Your task to perform on an android device: snooze an email in the gmail app Image 0: 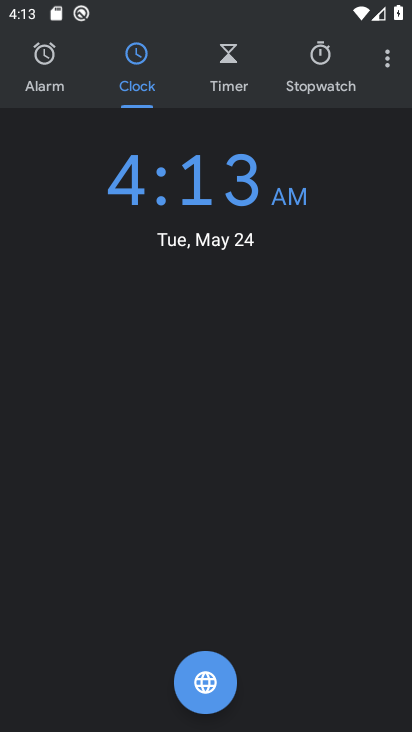
Step 0: press home button
Your task to perform on an android device: snooze an email in the gmail app Image 1: 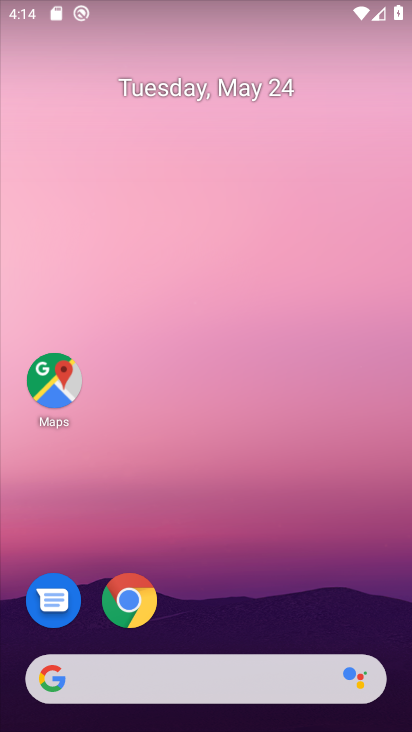
Step 1: drag from (186, 660) to (147, 54)
Your task to perform on an android device: snooze an email in the gmail app Image 2: 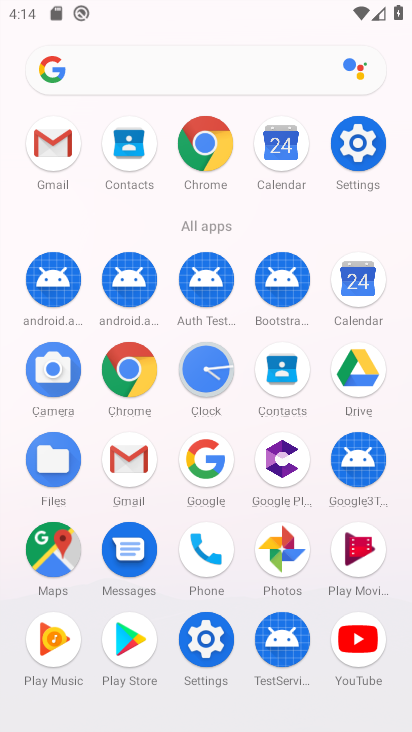
Step 2: click (123, 464)
Your task to perform on an android device: snooze an email in the gmail app Image 3: 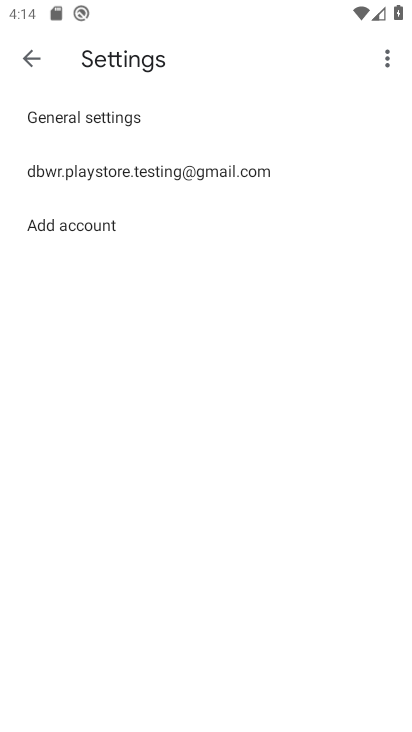
Step 3: press back button
Your task to perform on an android device: snooze an email in the gmail app Image 4: 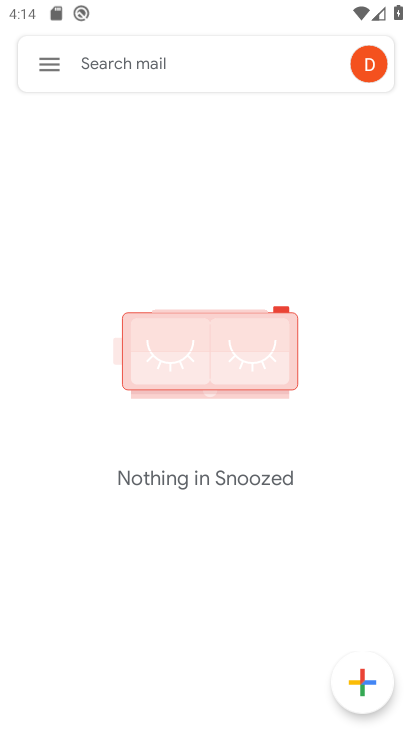
Step 4: click (50, 70)
Your task to perform on an android device: snooze an email in the gmail app Image 5: 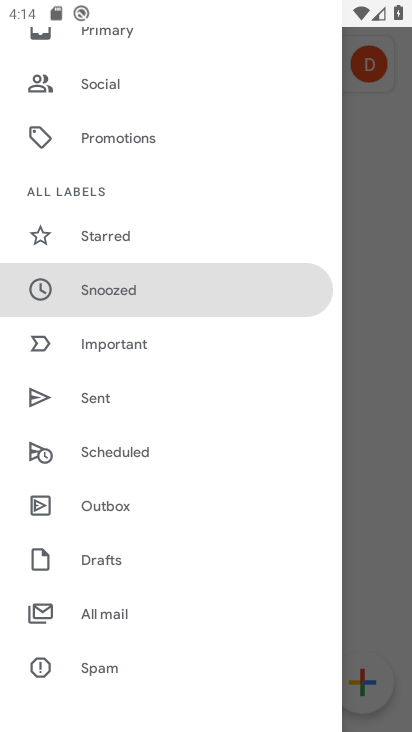
Step 5: click (136, 304)
Your task to perform on an android device: snooze an email in the gmail app Image 6: 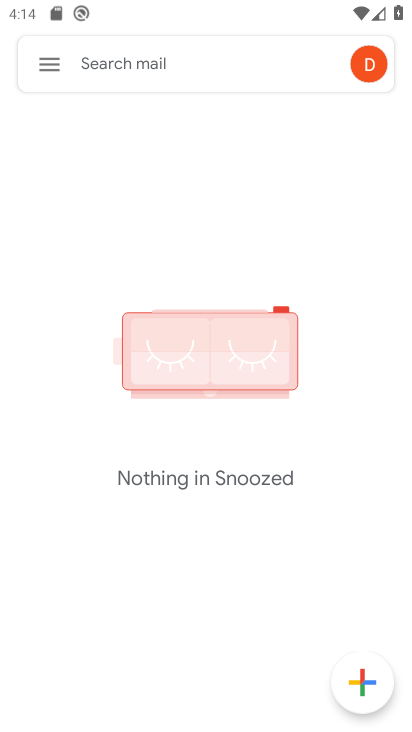
Step 6: task complete